Your task to perform on an android device: Go to Google maps Image 0: 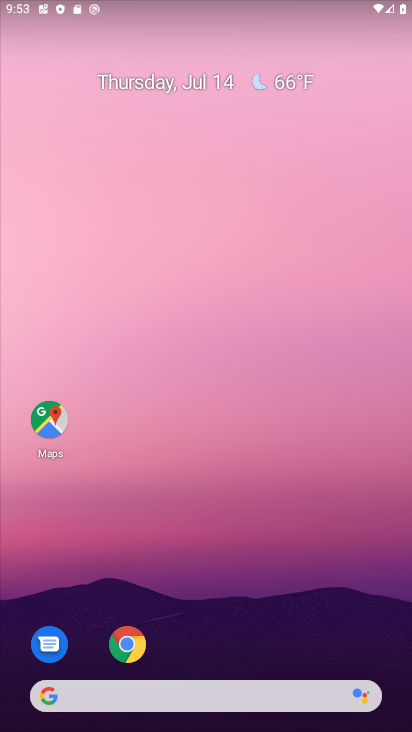
Step 0: drag from (234, 711) to (126, 103)
Your task to perform on an android device: Go to Google maps Image 1: 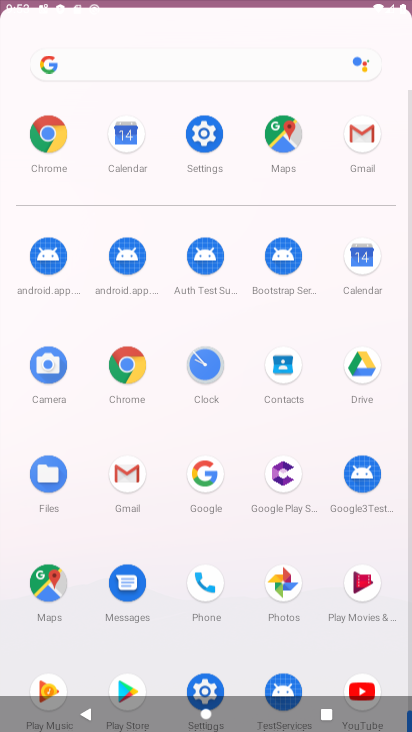
Step 1: click (208, 214)
Your task to perform on an android device: Go to Google maps Image 2: 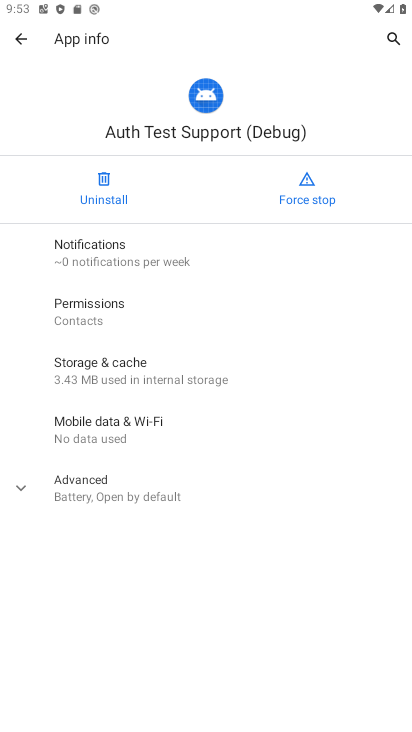
Step 2: click (25, 42)
Your task to perform on an android device: Go to Google maps Image 3: 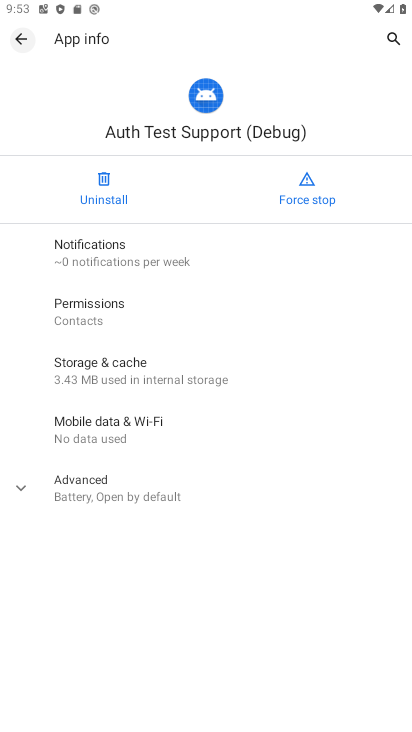
Step 3: click (24, 40)
Your task to perform on an android device: Go to Google maps Image 4: 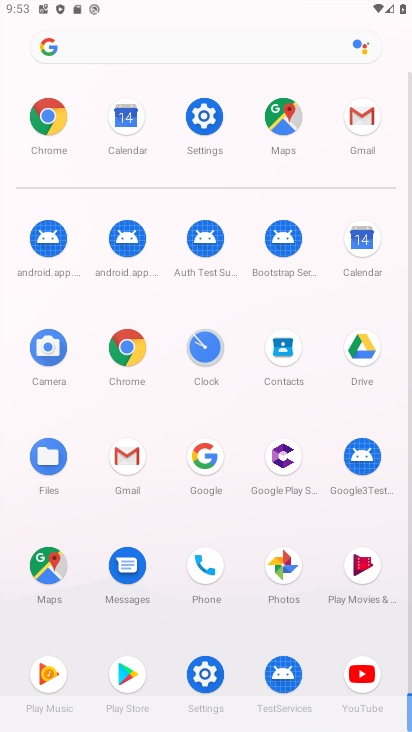
Step 4: click (49, 566)
Your task to perform on an android device: Go to Google maps Image 5: 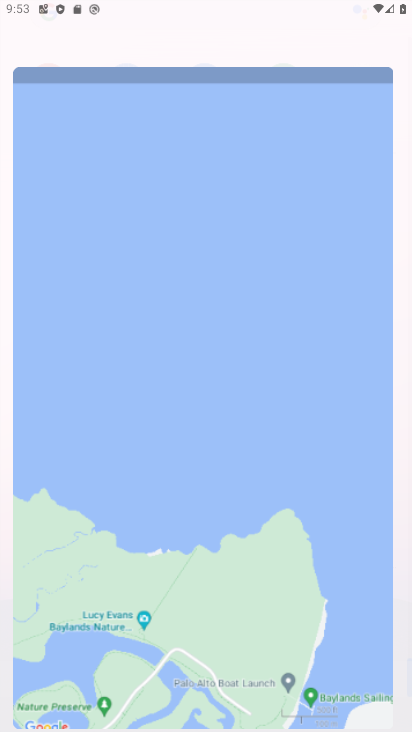
Step 5: click (50, 566)
Your task to perform on an android device: Go to Google maps Image 6: 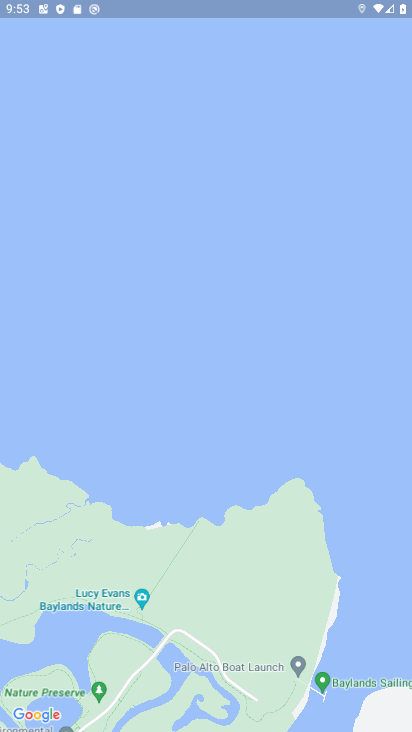
Step 6: task complete